Your task to perform on an android device: Go to Wikipedia Image 0: 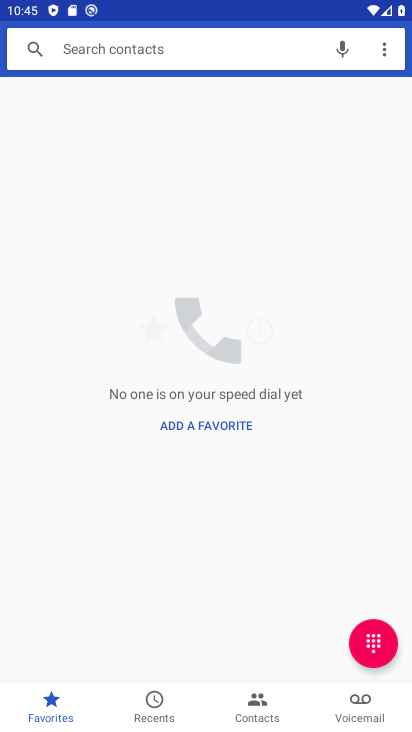
Step 0: press home button
Your task to perform on an android device: Go to Wikipedia Image 1: 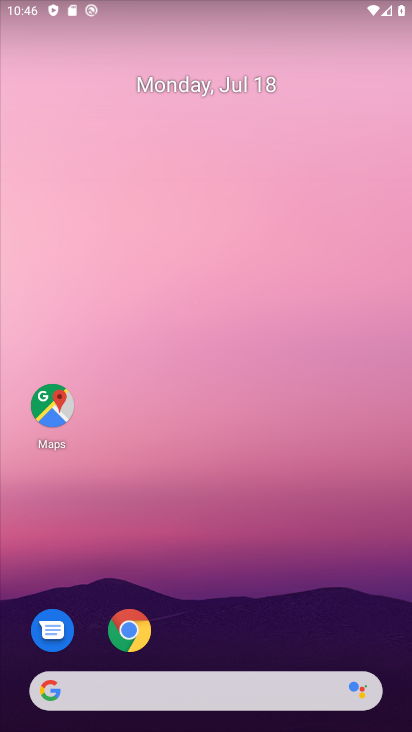
Step 1: click (136, 630)
Your task to perform on an android device: Go to Wikipedia Image 2: 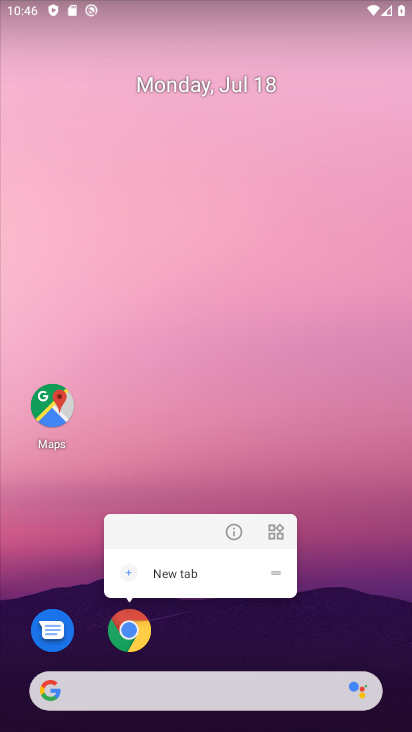
Step 2: click (138, 635)
Your task to perform on an android device: Go to Wikipedia Image 3: 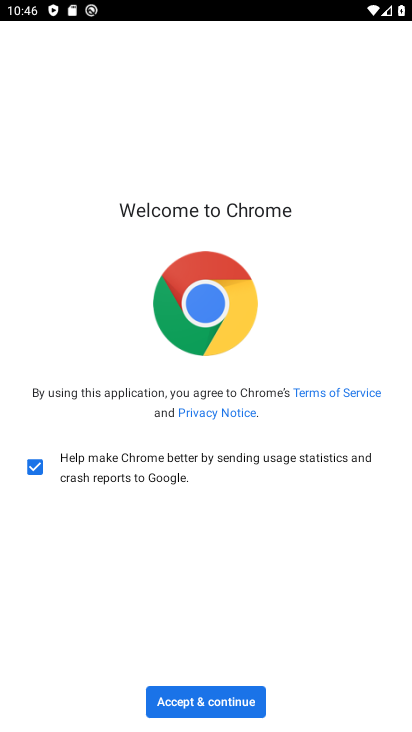
Step 3: click (219, 695)
Your task to perform on an android device: Go to Wikipedia Image 4: 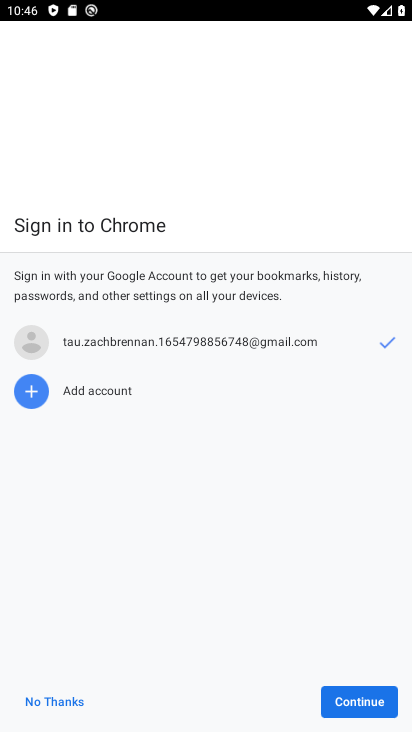
Step 4: click (348, 705)
Your task to perform on an android device: Go to Wikipedia Image 5: 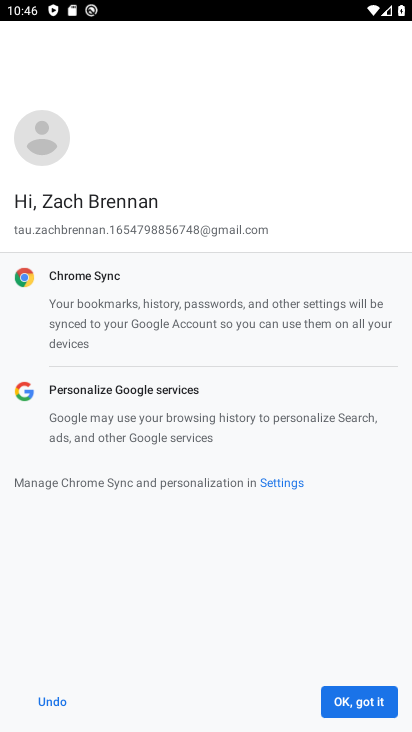
Step 5: click (348, 705)
Your task to perform on an android device: Go to Wikipedia Image 6: 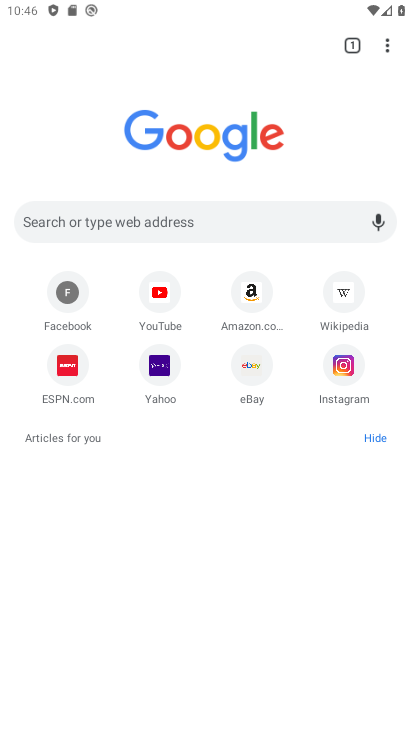
Step 6: click (341, 290)
Your task to perform on an android device: Go to Wikipedia Image 7: 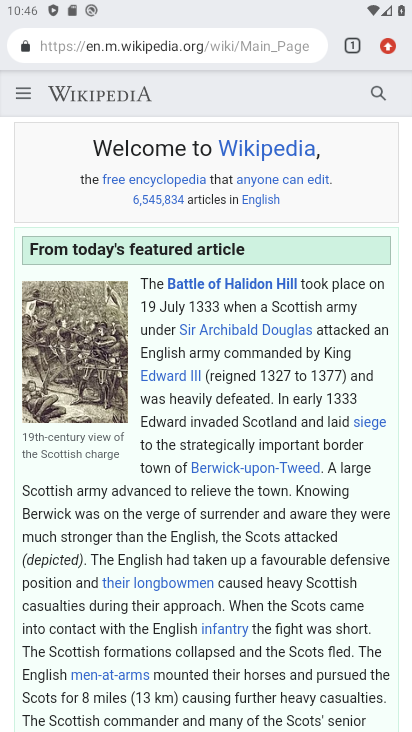
Step 7: task complete